Your task to perform on an android device: Go to display settings Image 0: 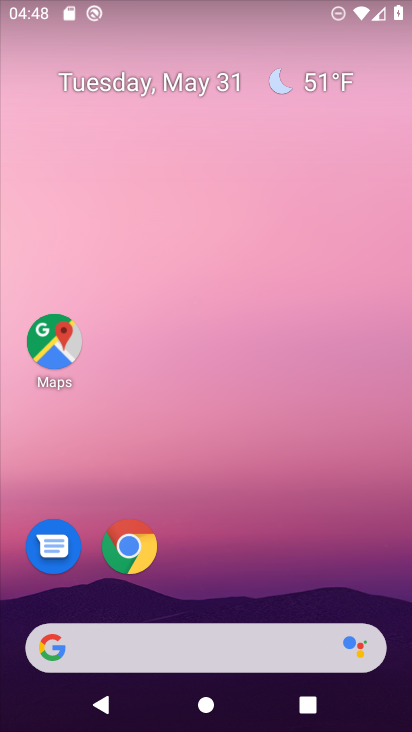
Step 0: drag from (195, 600) to (226, 117)
Your task to perform on an android device: Go to display settings Image 1: 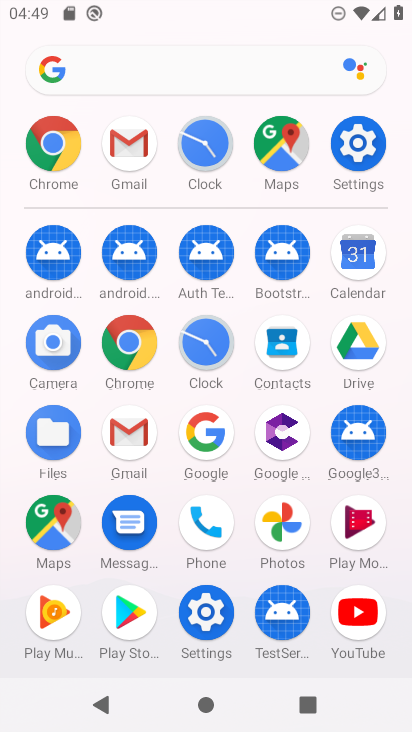
Step 1: click (366, 172)
Your task to perform on an android device: Go to display settings Image 2: 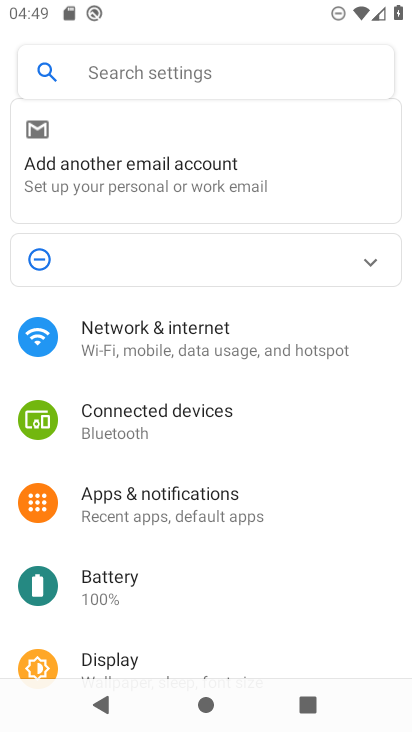
Step 2: drag from (118, 575) to (145, 371)
Your task to perform on an android device: Go to display settings Image 3: 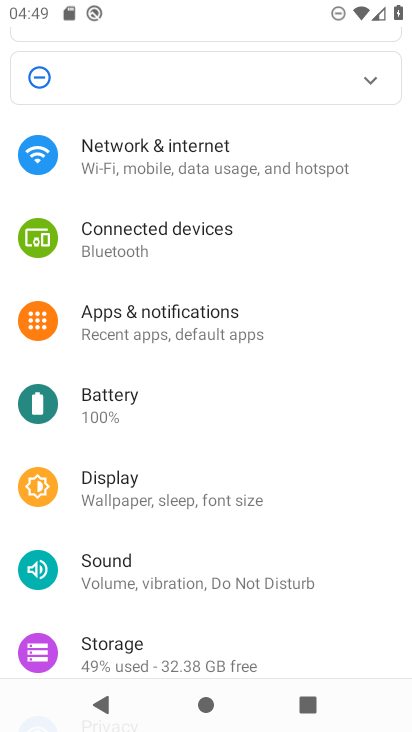
Step 3: click (89, 502)
Your task to perform on an android device: Go to display settings Image 4: 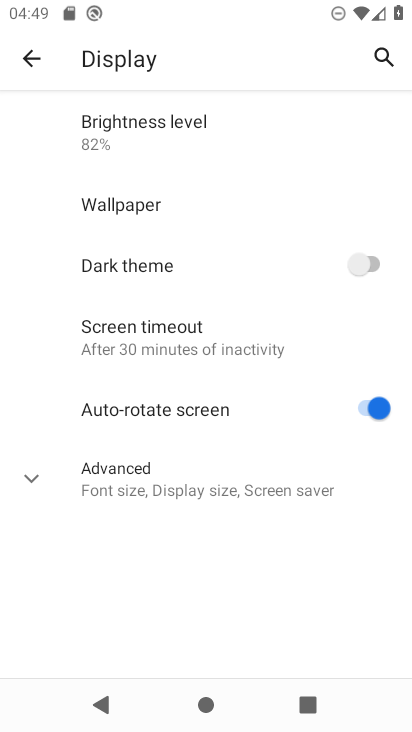
Step 4: task complete